Your task to perform on an android device: check storage Image 0: 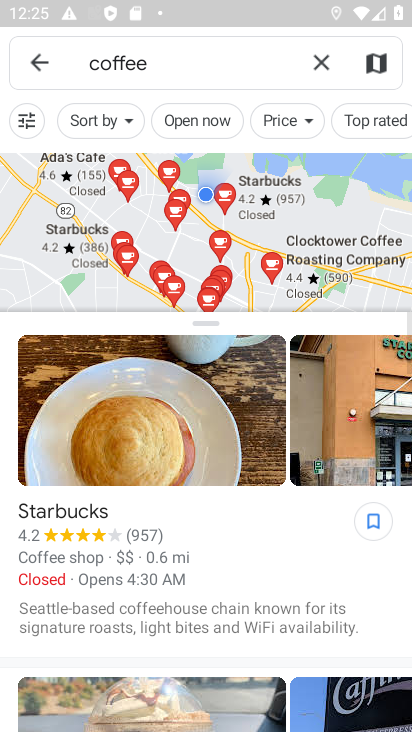
Step 0: press home button
Your task to perform on an android device: check storage Image 1: 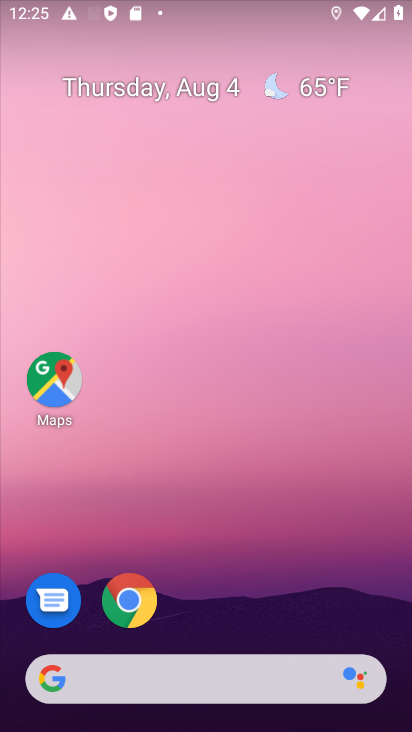
Step 1: drag from (207, 635) to (205, 21)
Your task to perform on an android device: check storage Image 2: 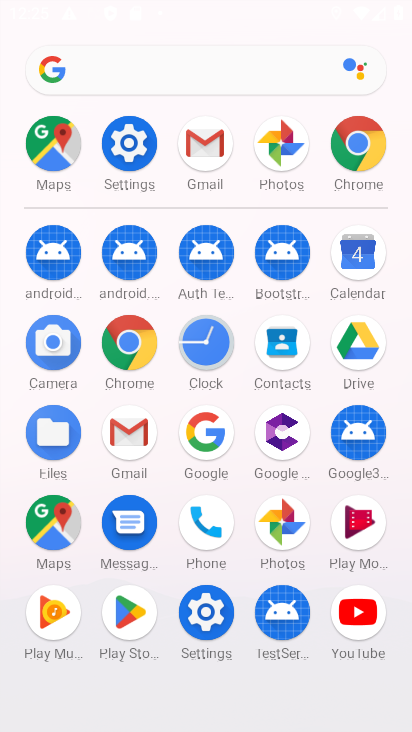
Step 2: click (124, 162)
Your task to perform on an android device: check storage Image 3: 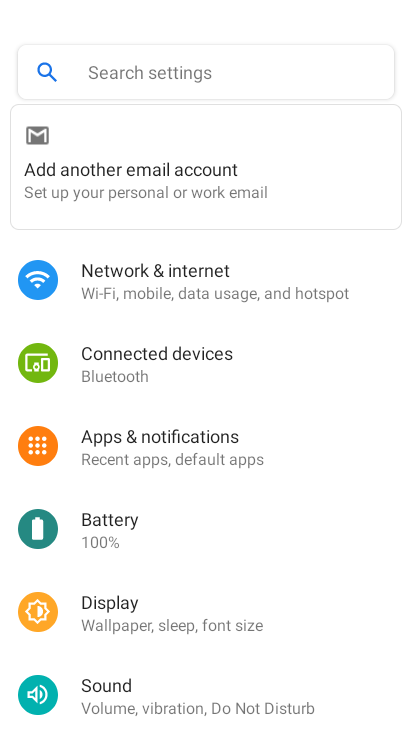
Step 3: drag from (166, 547) to (118, 60)
Your task to perform on an android device: check storage Image 4: 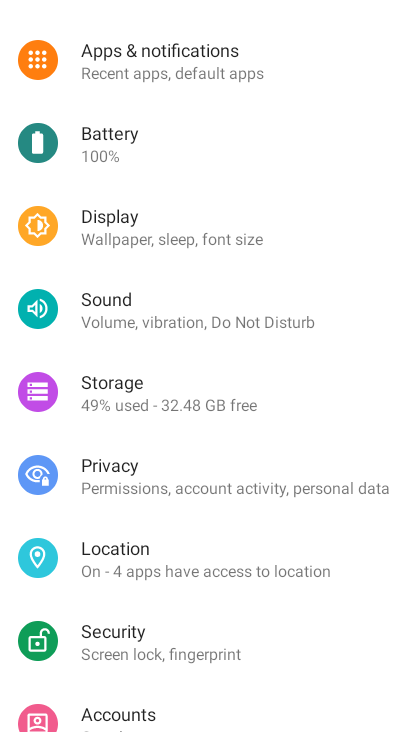
Step 4: click (104, 391)
Your task to perform on an android device: check storage Image 5: 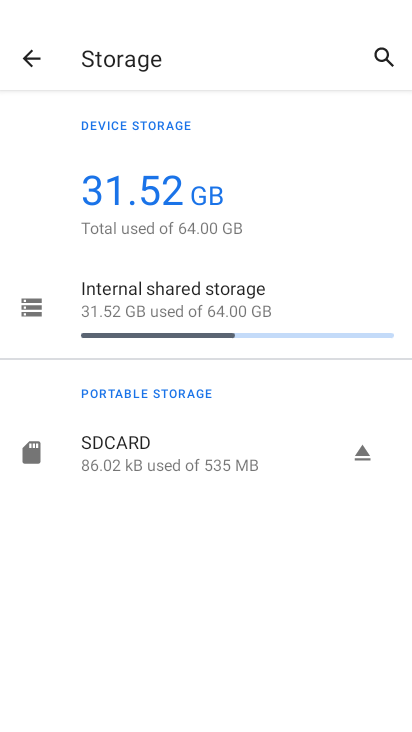
Step 5: task complete